Your task to perform on an android device: Open wifi settings Image 0: 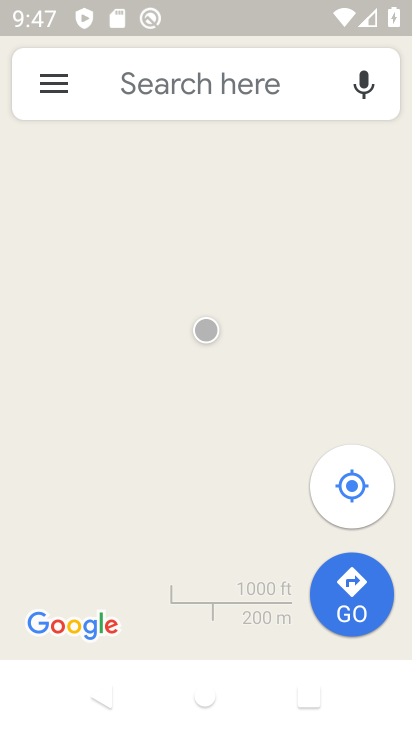
Step 0: press home button
Your task to perform on an android device: Open wifi settings Image 1: 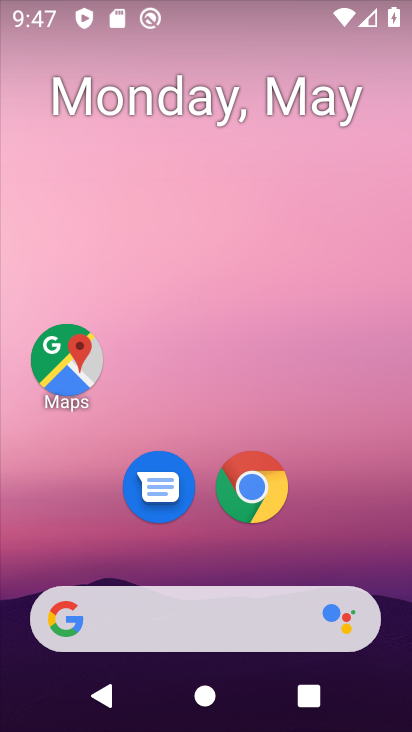
Step 1: drag from (215, 481) to (145, 7)
Your task to perform on an android device: Open wifi settings Image 2: 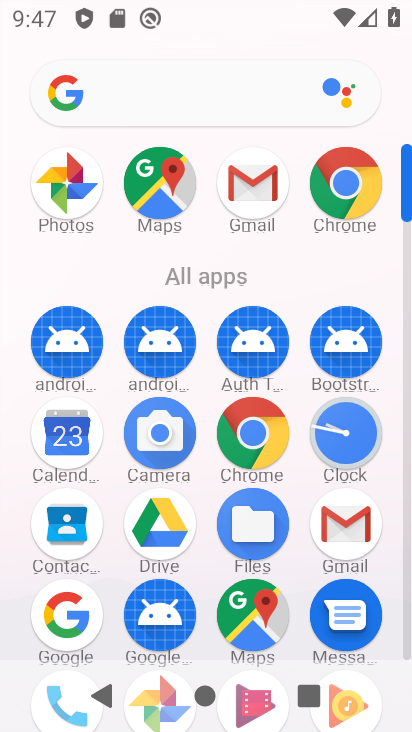
Step 2: drag from (201, 530) to (212, 219)
Your task to perform on an android device: Open wifi settings Image 3: 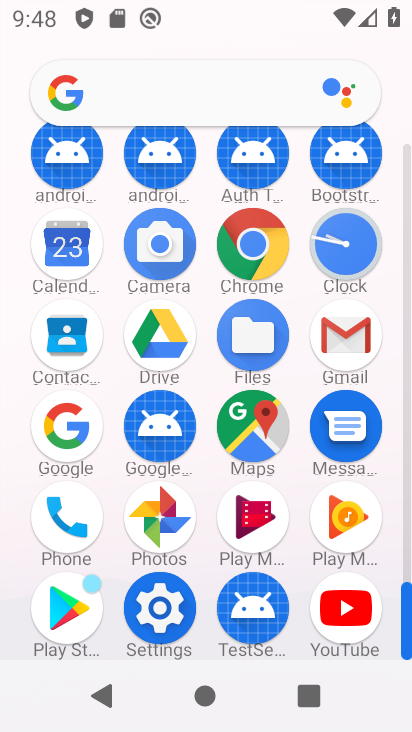
Step 3: click (162, 613)
Your task to perform on an android device: Open wifi settings Image 4: 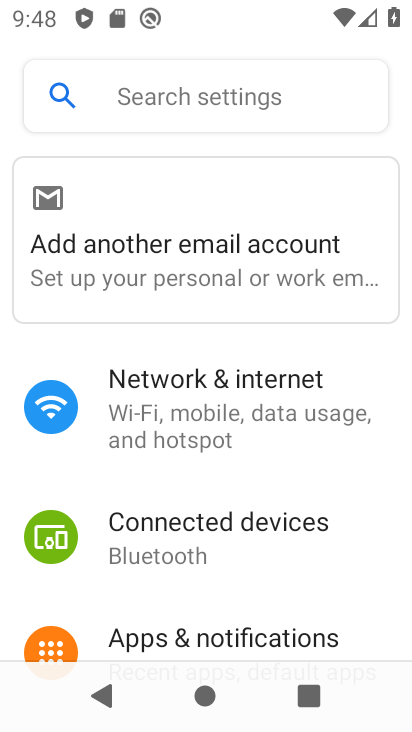
Step 4: click (220, 419)
Your task to perform on an android device: Open wifi settings Image 5: 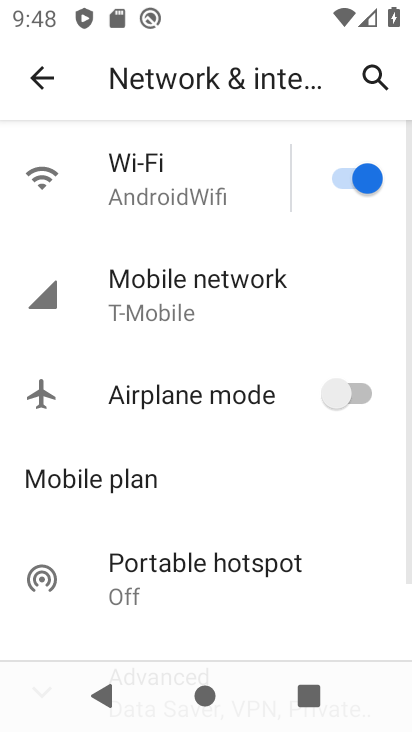
Step 5: click (168, 192)
Your task to perform on an android device: Open wifi settings Image 6: 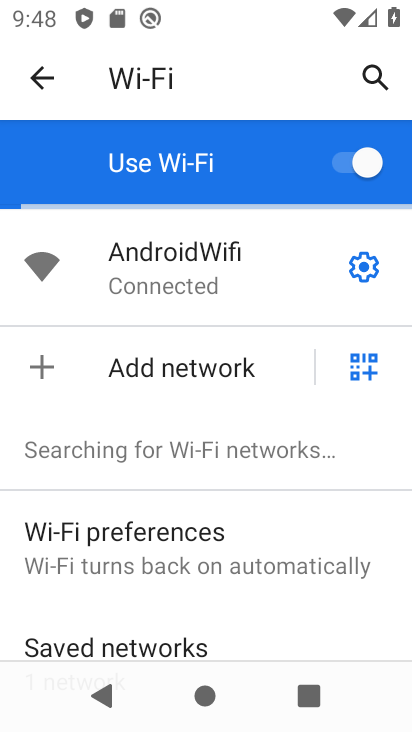
Step 6: task complete